Your task to perform on an android device: Go to CNN.com Image 0: 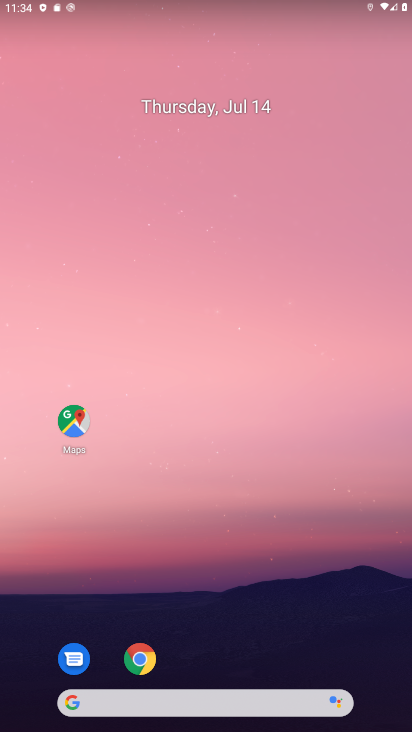
Step 0: drag from (333, 650) to (236, 236)
Your task to perform on an android device: Go to CNN.com Image 1: 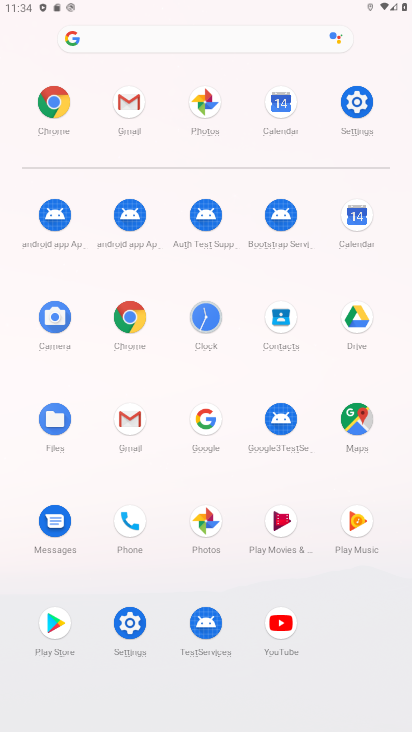
Step 1: click (50, 94)
Your task to perform on an android device: Go to CNN.com Image 2: 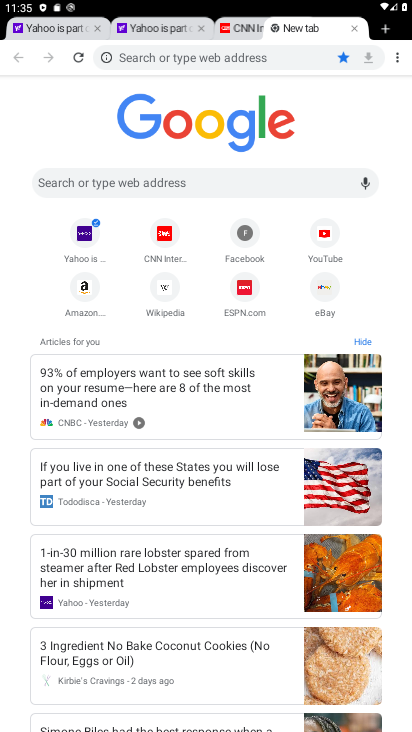
Step 2: click (120, 179)
Your task to perform on an android device: Go to CNN.com Image 3: 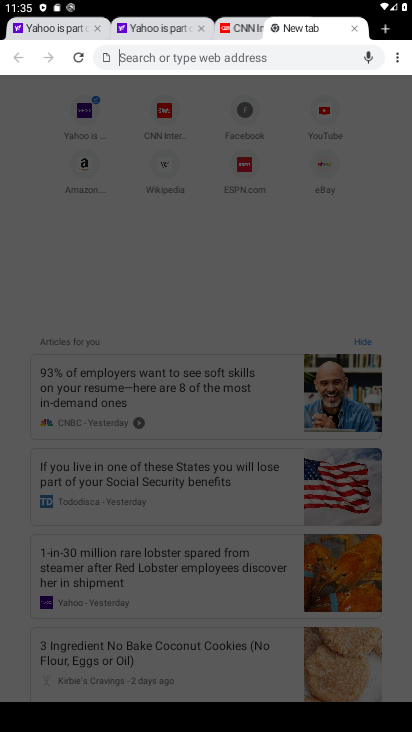
Step 3: type "CNN.com "
Your task to perform on an android device: Go to CNN.com Image 4: 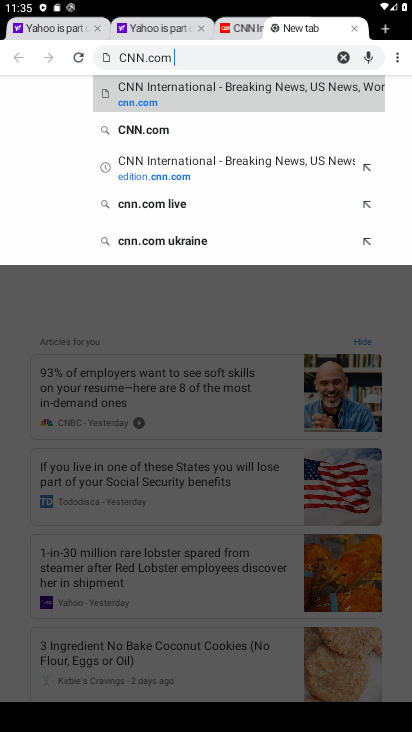
Step 4: click (202, 90)
Your task to perform on an android device: Go to CNN.com Image 5: 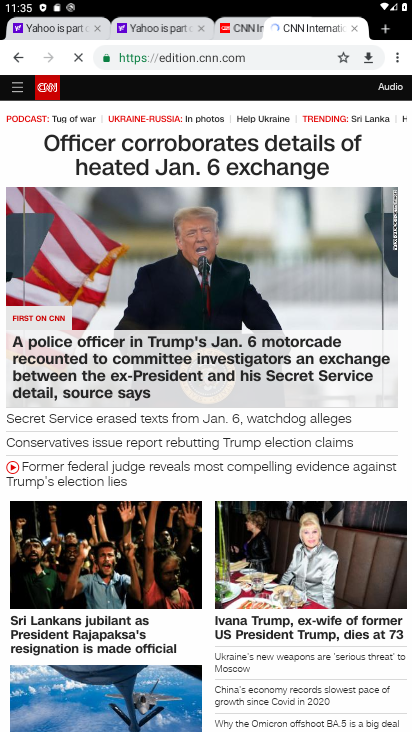
Step 5: task complete